Your task to perform on an android device: open app "File Manager" (install if not already installed) Image 0: 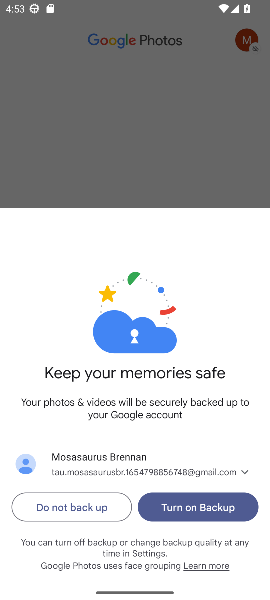
Step 0: press home button
Your task to perform on an android device: open app "File Manager" (install if not already installed) Image 1: 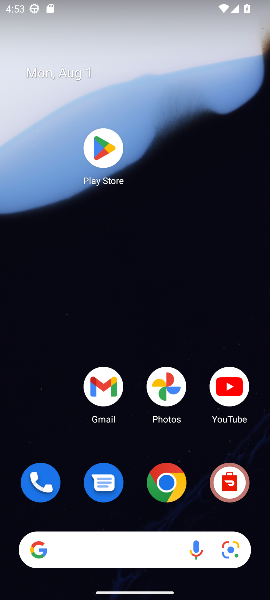
Step 1: click (104, 151)
Your task to perform on an android device: open app "File Manager" (install if not already installed) Image 2: 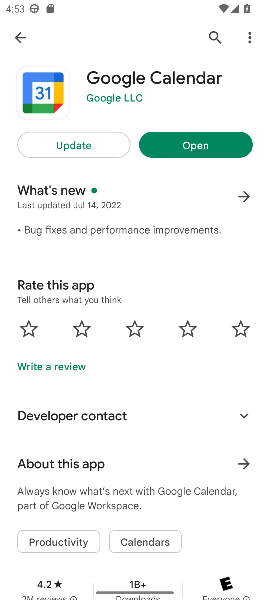
Step 2: click (206, 30)
Your task to perform on an android device: open app "File Manager" (install if not already installed) Image 3: 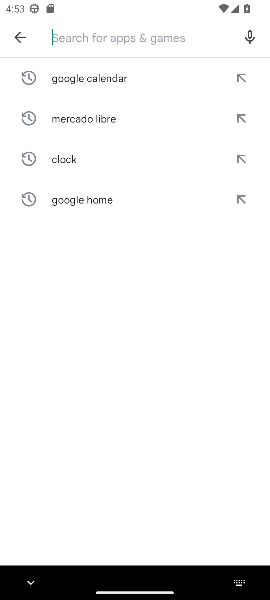
Step 3: type "File Manager"
Your task to perform on an android device: open app "File Manager" (install if not already installed) Image 4: 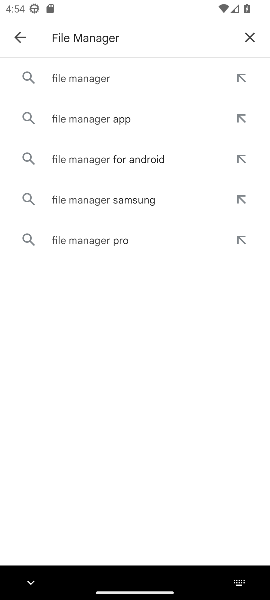
Step 4: click (110, 72)
Your task to perform on an android device: open app "File Manager" (install if not already installed) Image 5: 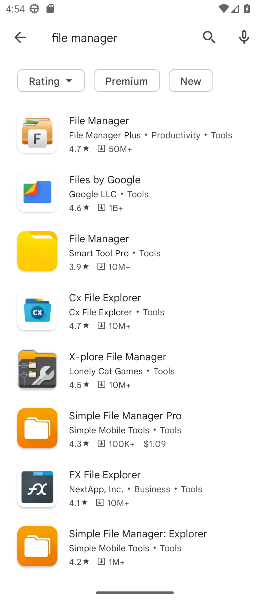
Step 5: click (110, 135)
Your task to perform on an android device: open app "File Manager" (install if not already installed) Image 6: 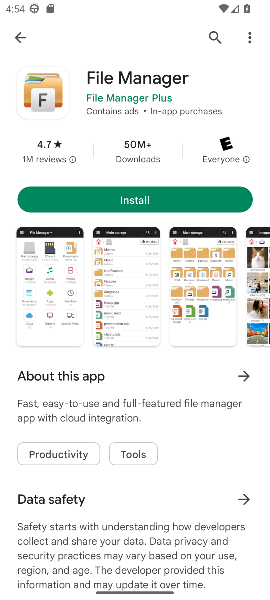
Step 6: click (159, 198)
Your task to perform on an android device: open app "File Manager" (install if not already installed) Image 7: 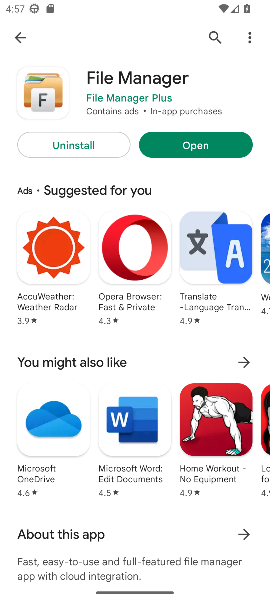
Step 7: click (202, 140)
Your task to perform on an android device: open app "File Manager" (install if not already installed) Image 8: 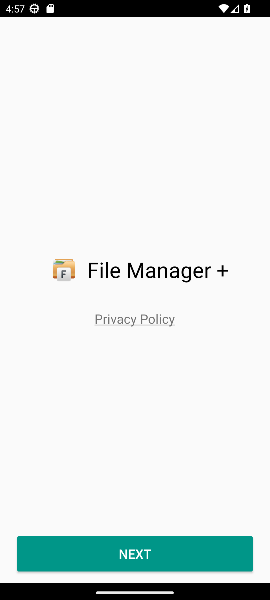
Step 8: task complete